Your task to perform on an android device: delete a single message in the gmail app Image 0: 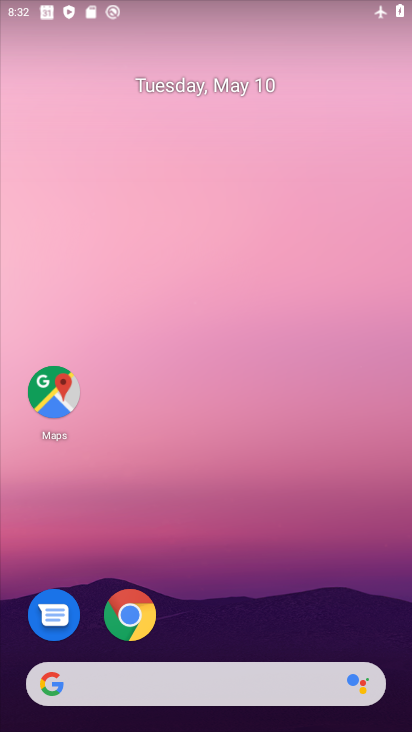
Step 0: click (387, 54)
Your task to perform on an android device: delete a single message in the gmail app Image 1: 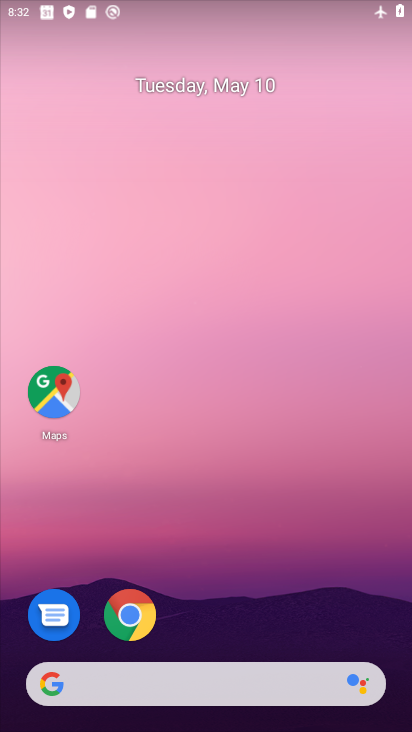
Step 1: drag from (234, 639) to (162, 189)
Your task to perform on an android device: delete a single message in the gmail app Image 2: 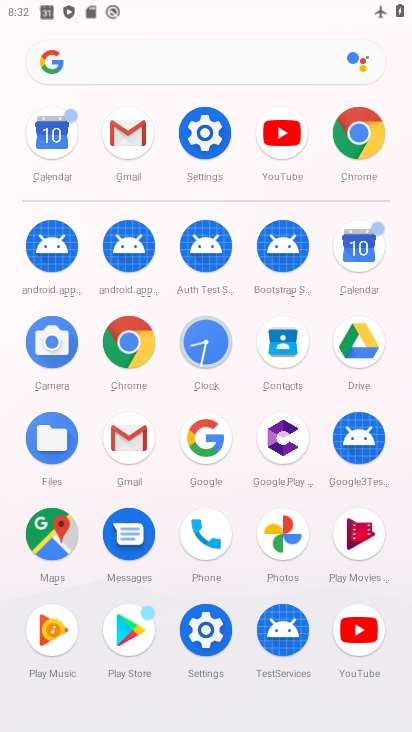
Step 2: click (119, 452)
Your task to perform on an android device: delete a single message in the gmail app Image 3: 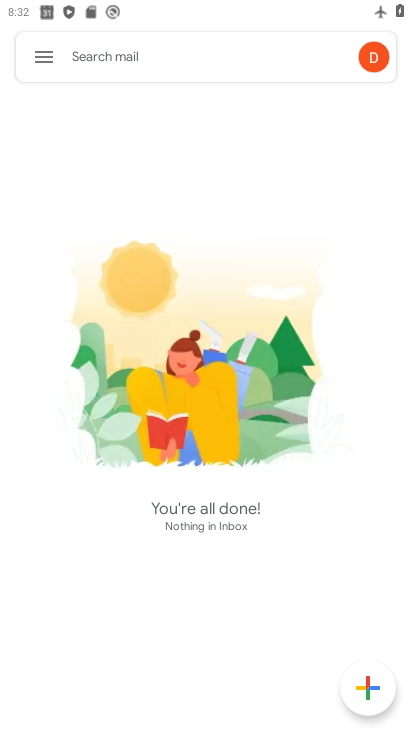
Step 3: click (38, 40)
Your task to perform on an android device: delete a single message in the gmail app Image 4: 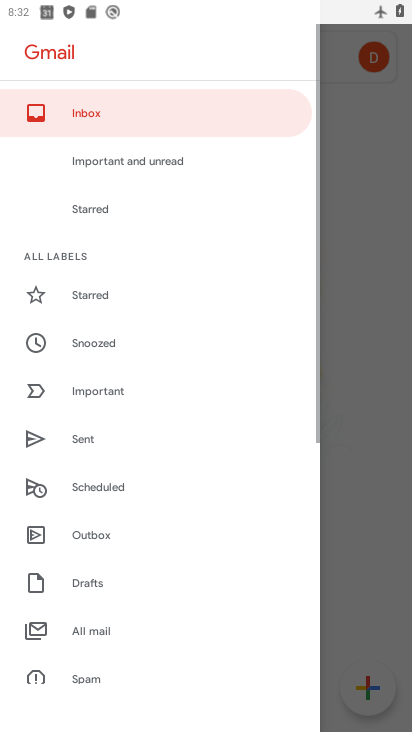
Step 4: click (100, 100)
Your task to perform on an android device: delete a single message in the gmail app Image 5: 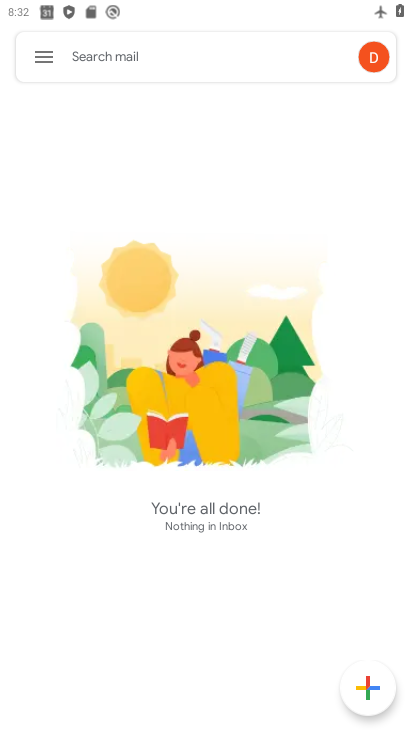
Step 5: task complete